Your task to perform on an android device: turn notification dots on Image 0: 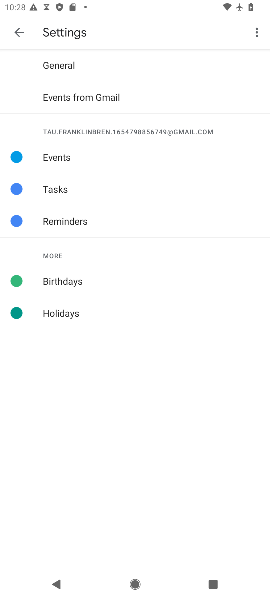
Step 0: press home button
Your task to perform on an android device: turn notification dots on Image 1: 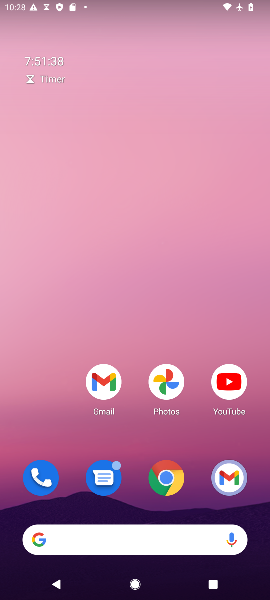
Step 1: drag from (201, 443) to (175, 21)
Your task to perform on an android device: turn notification dots on Image 2: 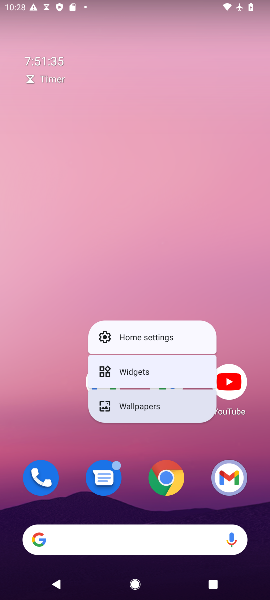
Step 2: drag from (261, 530) to (222, 142)
Your task to perform on an android device: turn notification dots on Image 3: 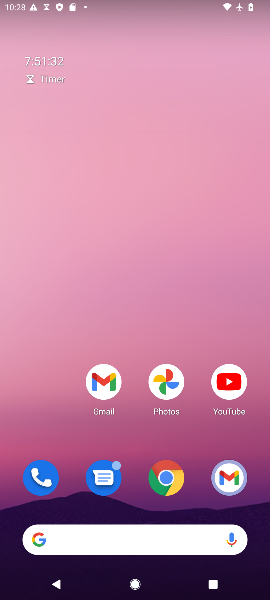
Step 3: drag from (201, 455) to (184, 95)
Your task to perform on an android device: turn notification dots on Image 4: 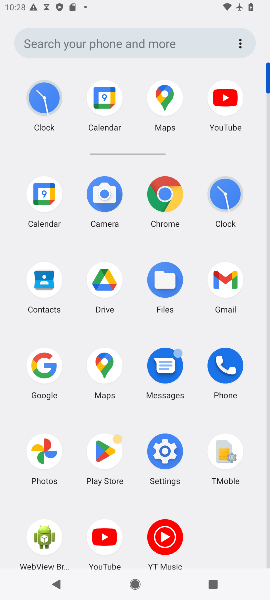
Step 4: click (167, 456)
Your task to perform on an android device: turn notification dots on Image 5: 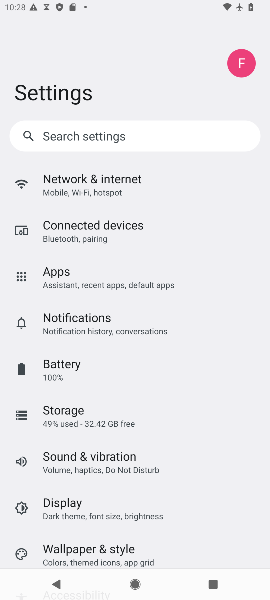
Step 5: click (127, 319)
Your task to perform on an android device: turn notification dots on Image 6: 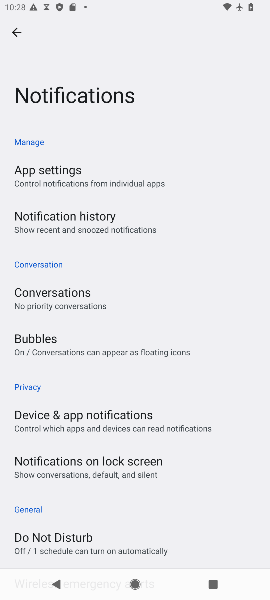
Step 6: task complete